Your task to perform on an android device: Open Yahoo.com Image 0: 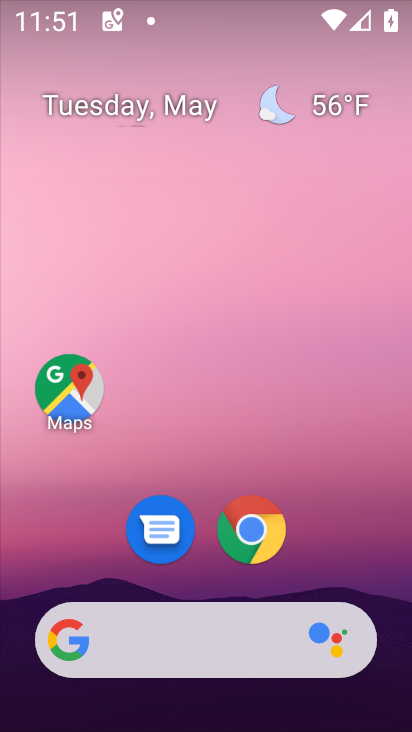
Step 0: drag from (394, 431) to (394, 379)
Your task to perform on an android device: Open Yahoo.com Image 1: 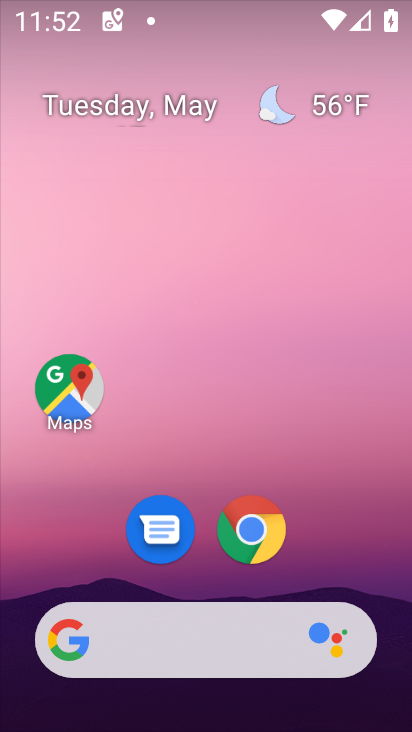
Step 1: click (251, 545)
Your task to perform on an android device: Open Yahoo.com Image 2: 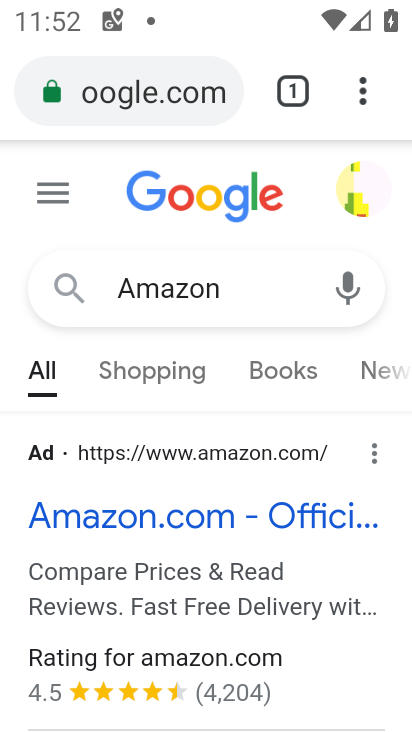
Step 2: click (231, 88)
Your task to perform on an android device: Open Yahoo.com Image 3: 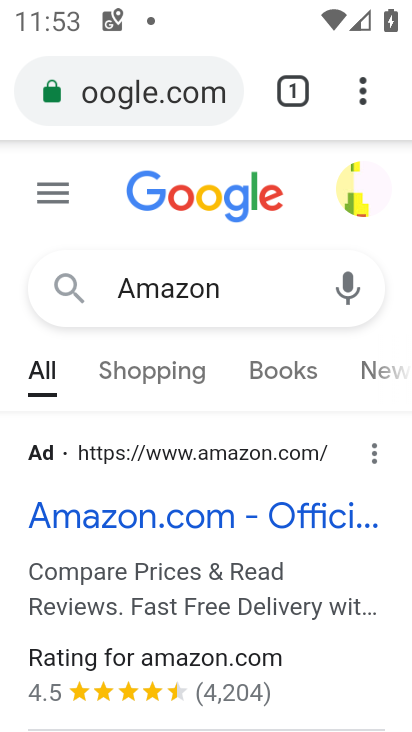
Step 3: click (225, 94)
Your task to perform on an android device: Open Yahoo.com Image 4: 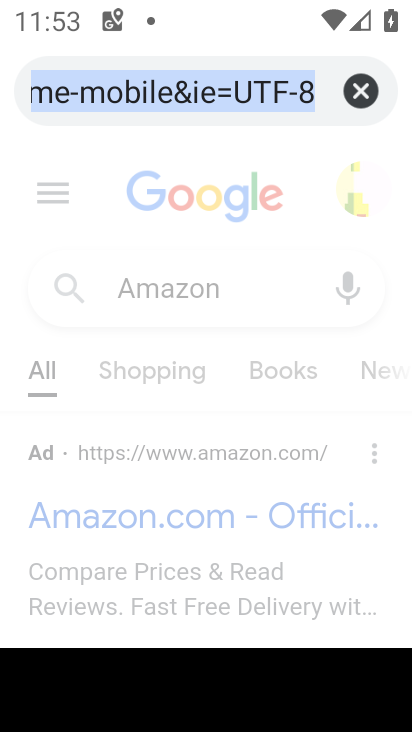
Step 4: click (358, 86)
Your task to perform on an android device: Open Yahoo.com Image 5: 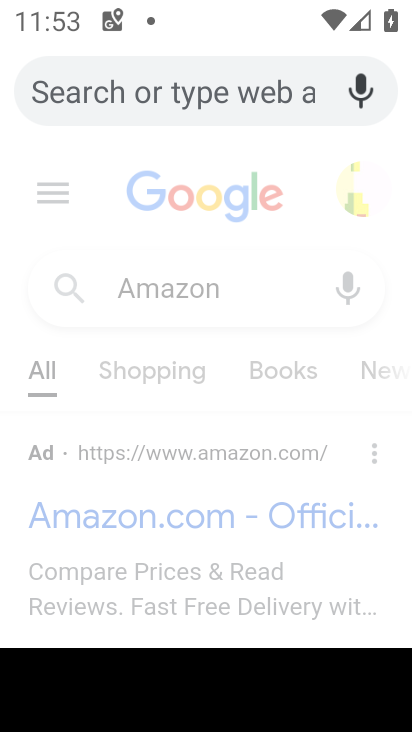
Step 5: type "Yahoo.com"
Your task to perform on an android device: Open Yahoo.com Image 6: 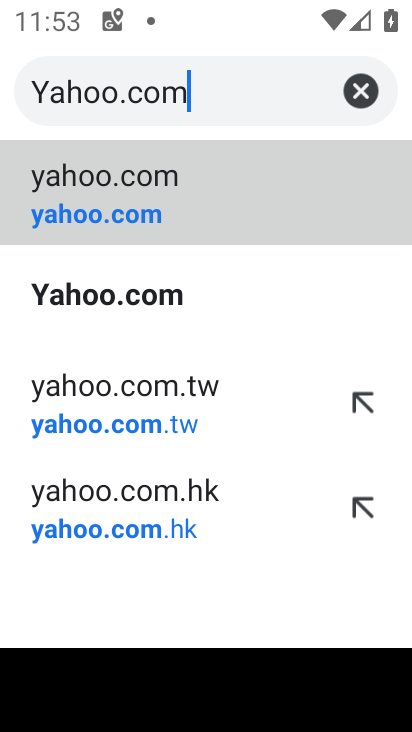
Step 6: task complete